Your task to perform on an android device: read, delete, or share a saved page in the chrome app Image 0: 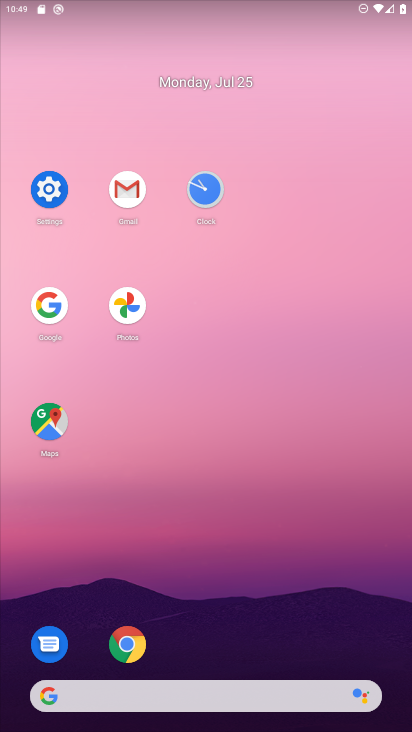
Step 0: click (122, 652)
Your task to perform on an android device: read, delete, or share a saved page in the chrome app Image 1: 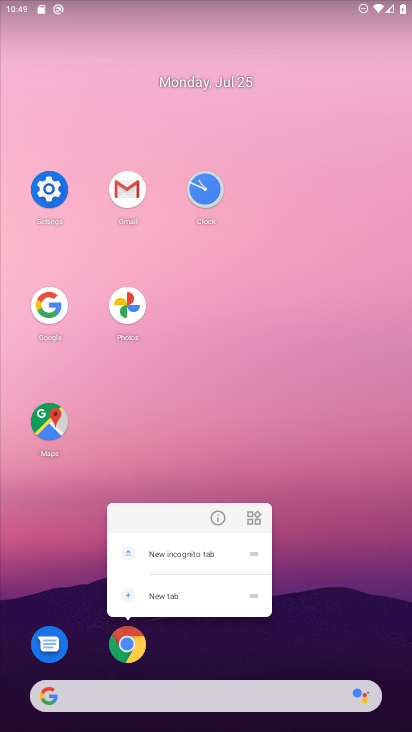
Step 1: click (129, 636)
Your task to perform on an android device: read, delete, or share a saved page in the chrome app Image 2: 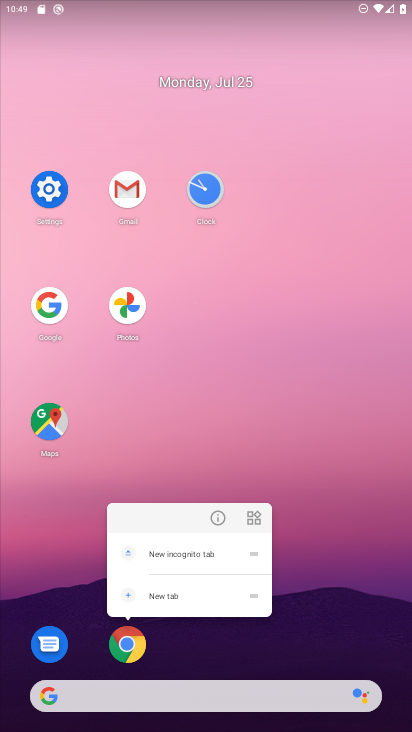
Step 2: click (110, 646)
Your task to perform on an android device: read, delete, or share a saved page in the chrome app Image 3: 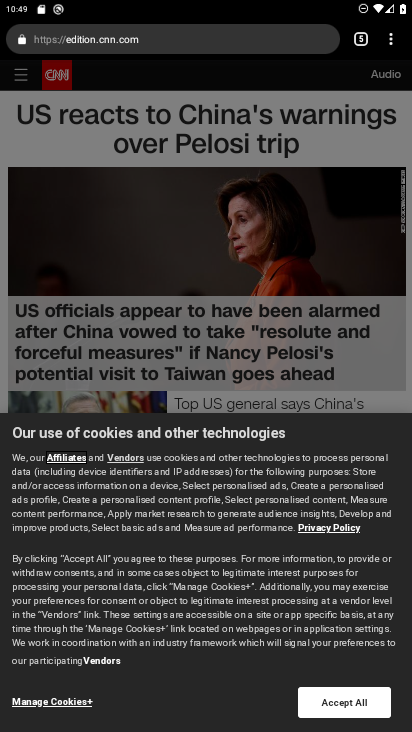
Step 3: click (393, 42)
Your task to perform on an android device: read, delete, or share a saved page in the chrome app Image 4: 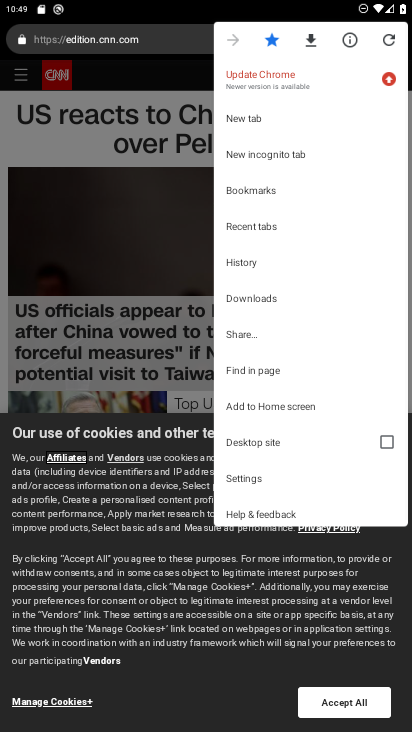
Step 4: click (269, 295)
Your task to perform on an android device: read, delete, or share a saved page in the chrome app Image 5: 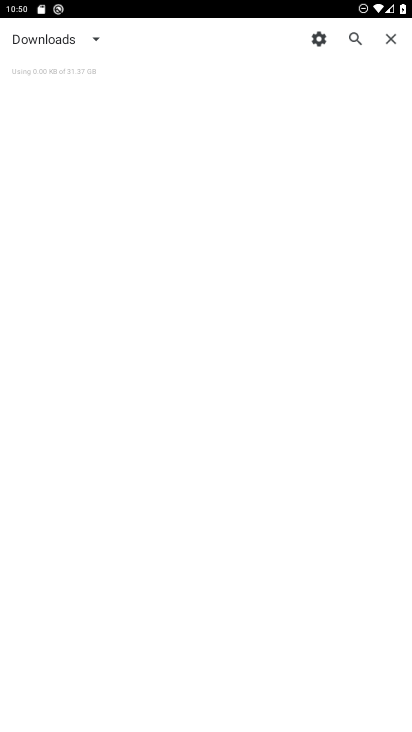
Step 5: task complete